Your task to perform on an android device: toggle sleep mode Image 0: 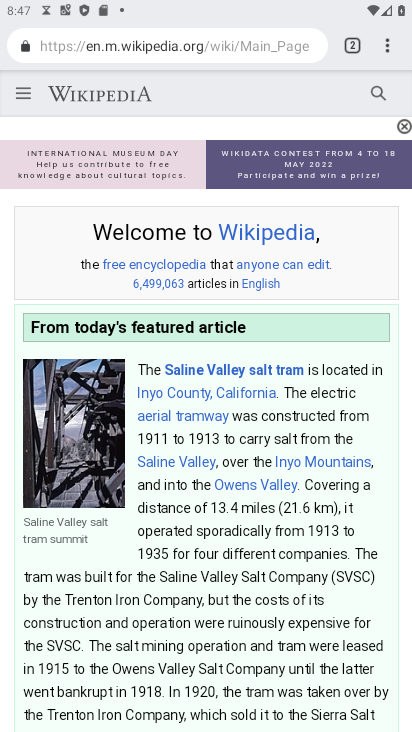
Step 0: press home button
Your task to perform on an android device: toggle sleep mode Image 1: 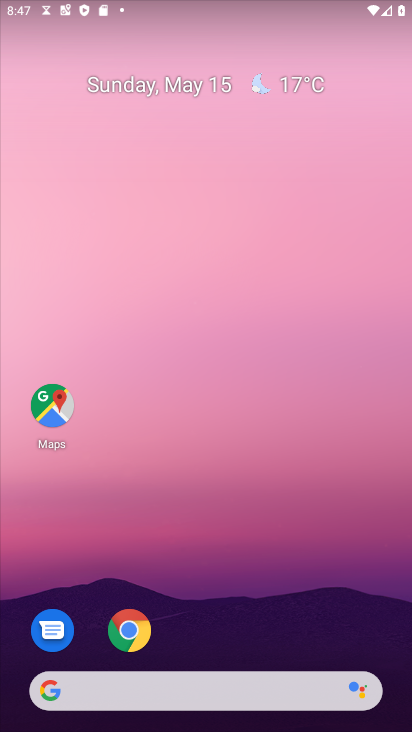
Step 1: drag from (261, 542) to (315, 19)
Your task to perform on an android device: toggle sleep mode Image 2: 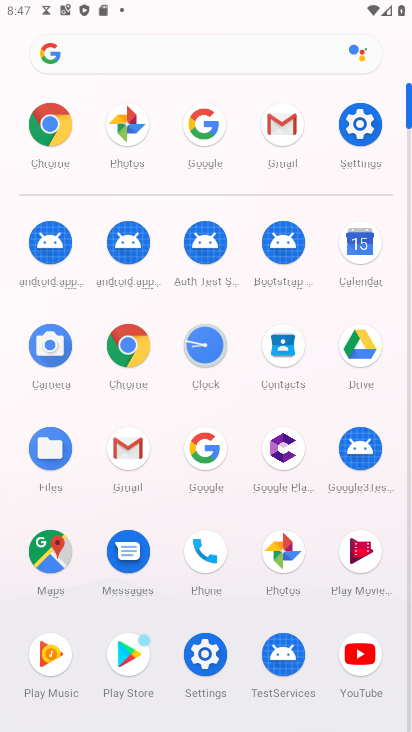
Step 2: click (354, 113)
Your task to perform on an android device: toggle sleep mode Image 3: 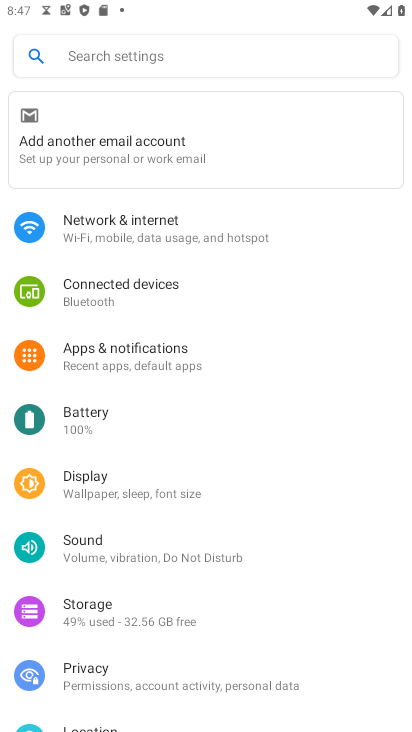
Step 3: click (139, 491)
Your task to perform on an android device: toggle sleep mode Image 4: 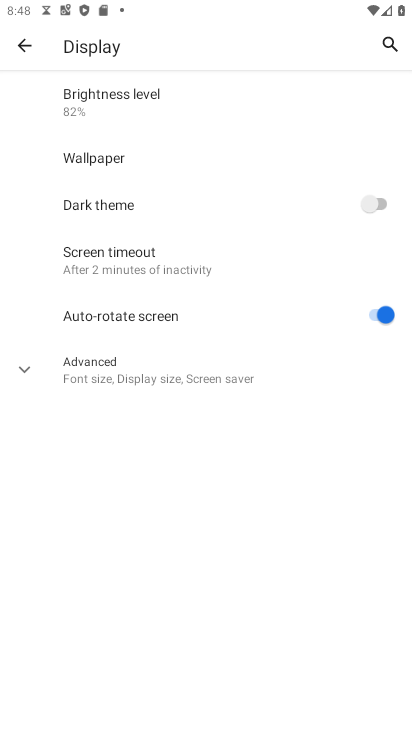
Step 4: click (91, 257)
Your task to perform on an android device: toggle sleep mode Image 5: 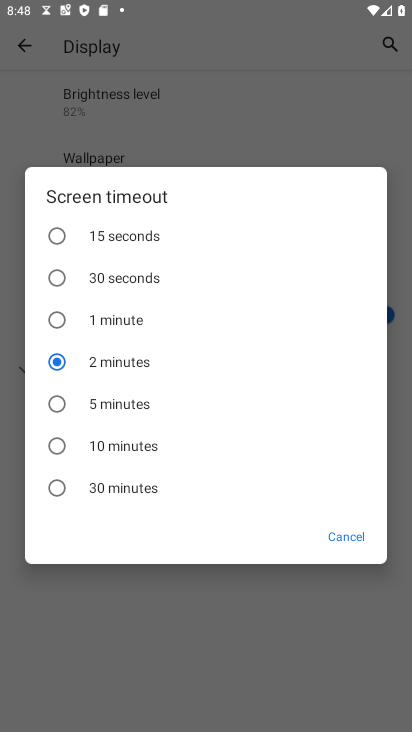
Step 5: click (96, 316)
Your task to perform on an android device: toggle sleep mode Image 6: 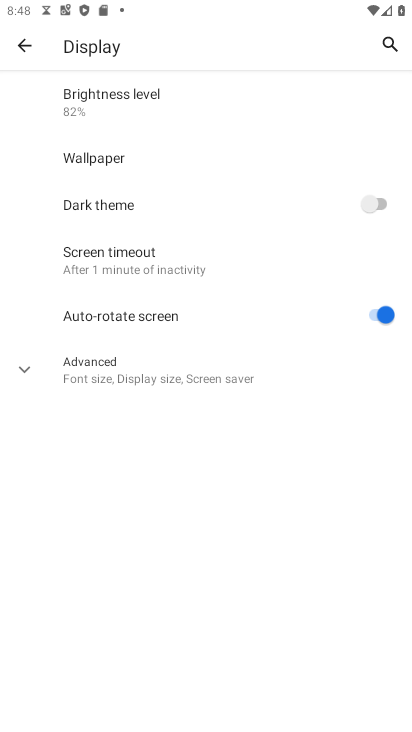
Step 6: task complete